Your task to perform on an android device: toggle airplane mode Image 0: 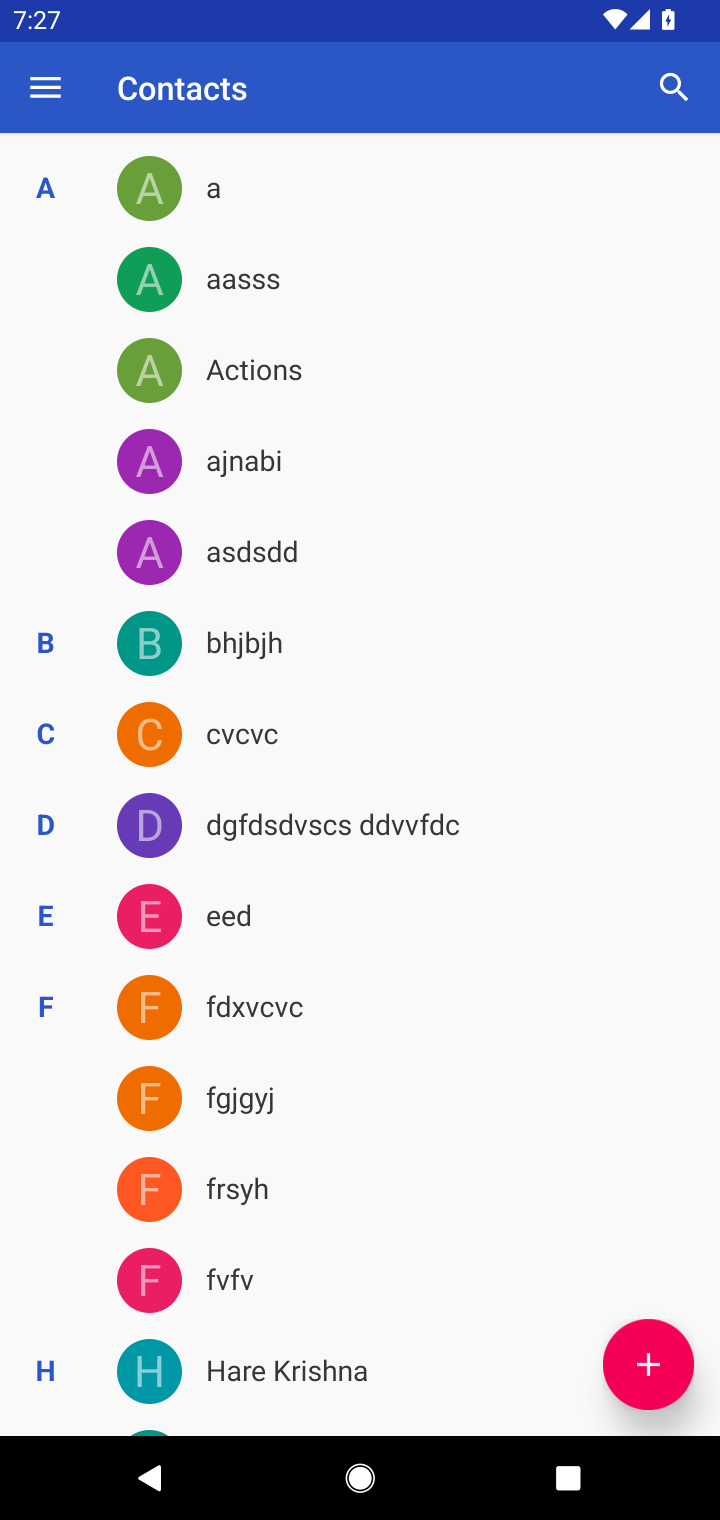
Step 0: press home button
Your task to perform on an android device: toggle airplane mode Image 1: 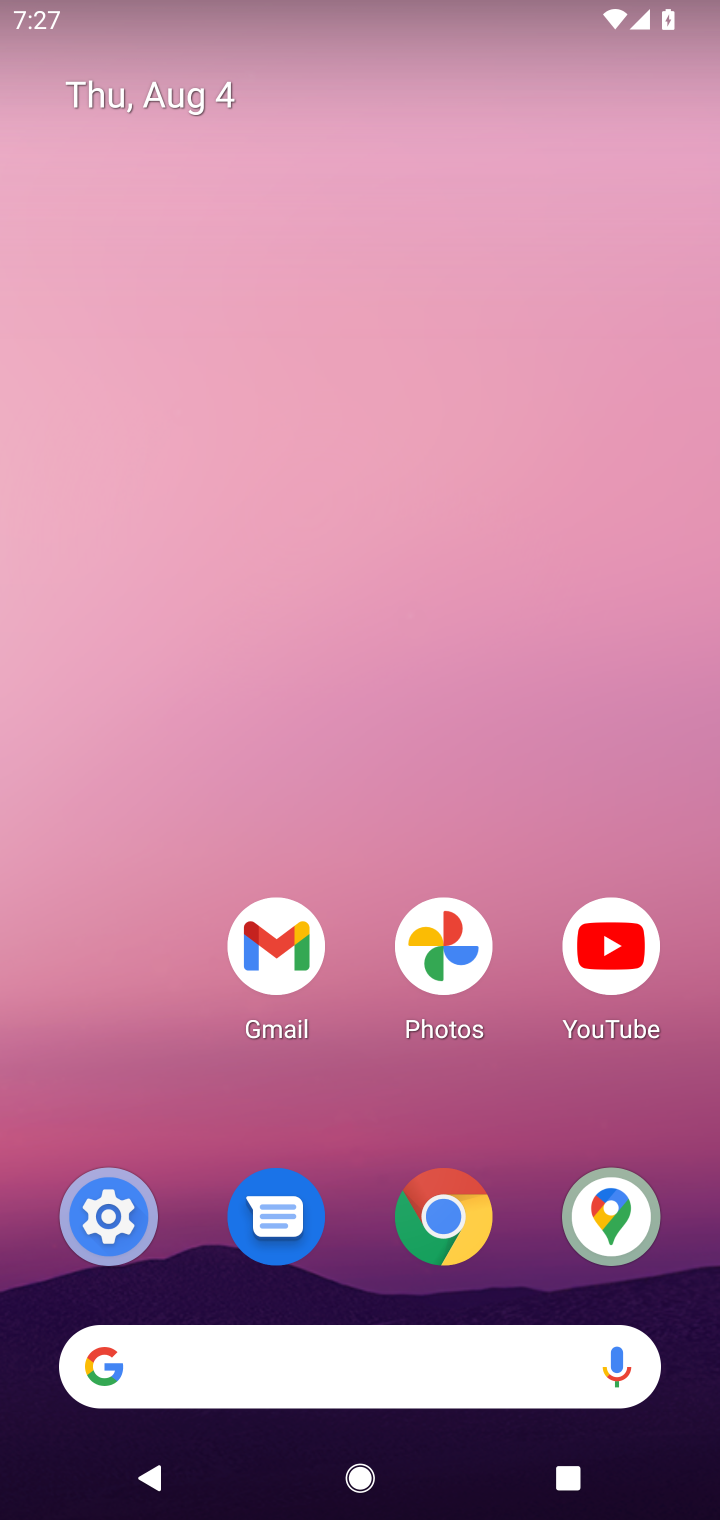
Step 1: drag from (358, 1139) to (360, 114)
Your task to perform on an android device: toggle airplane mode Image 2: 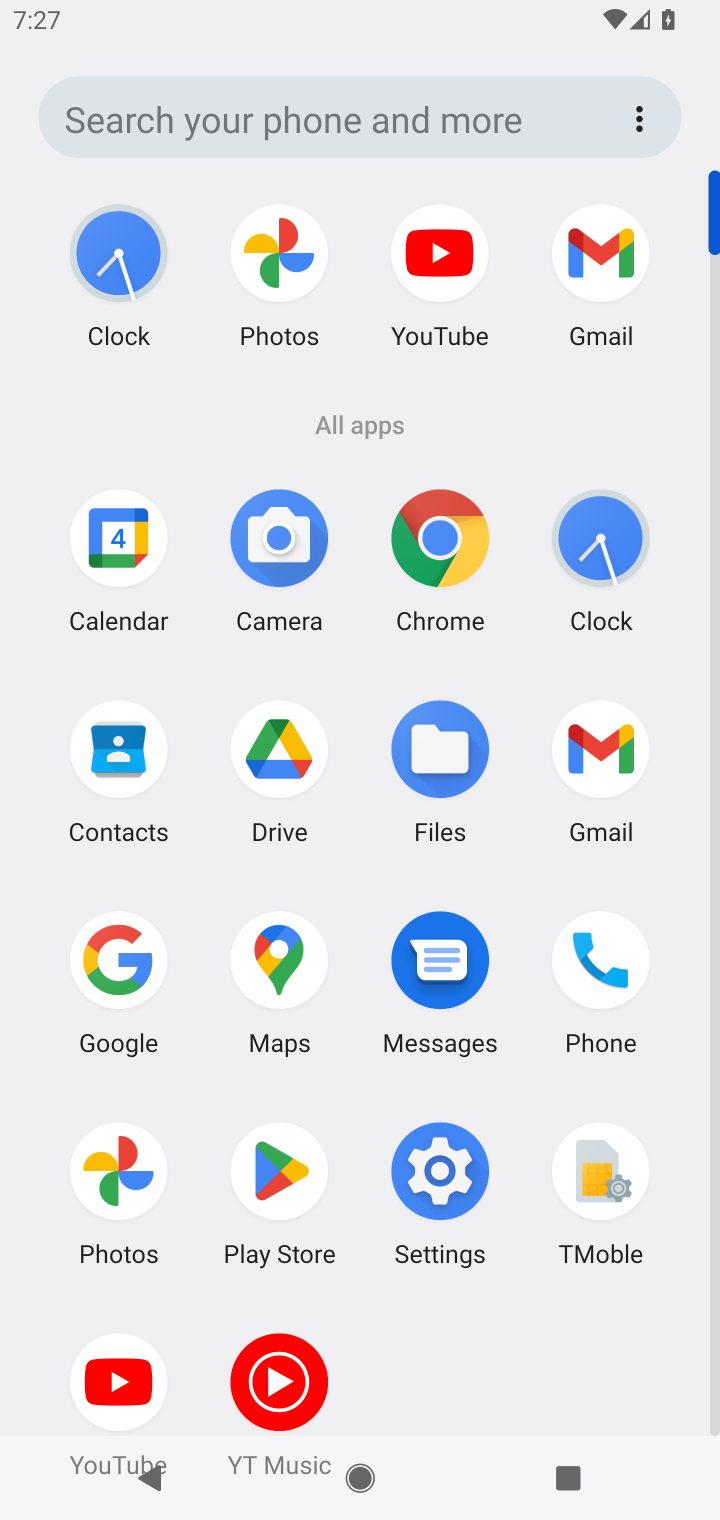
Step 2: click (442, 1185)
Your task to perform on an android device: toggle airplane mode Image 3: 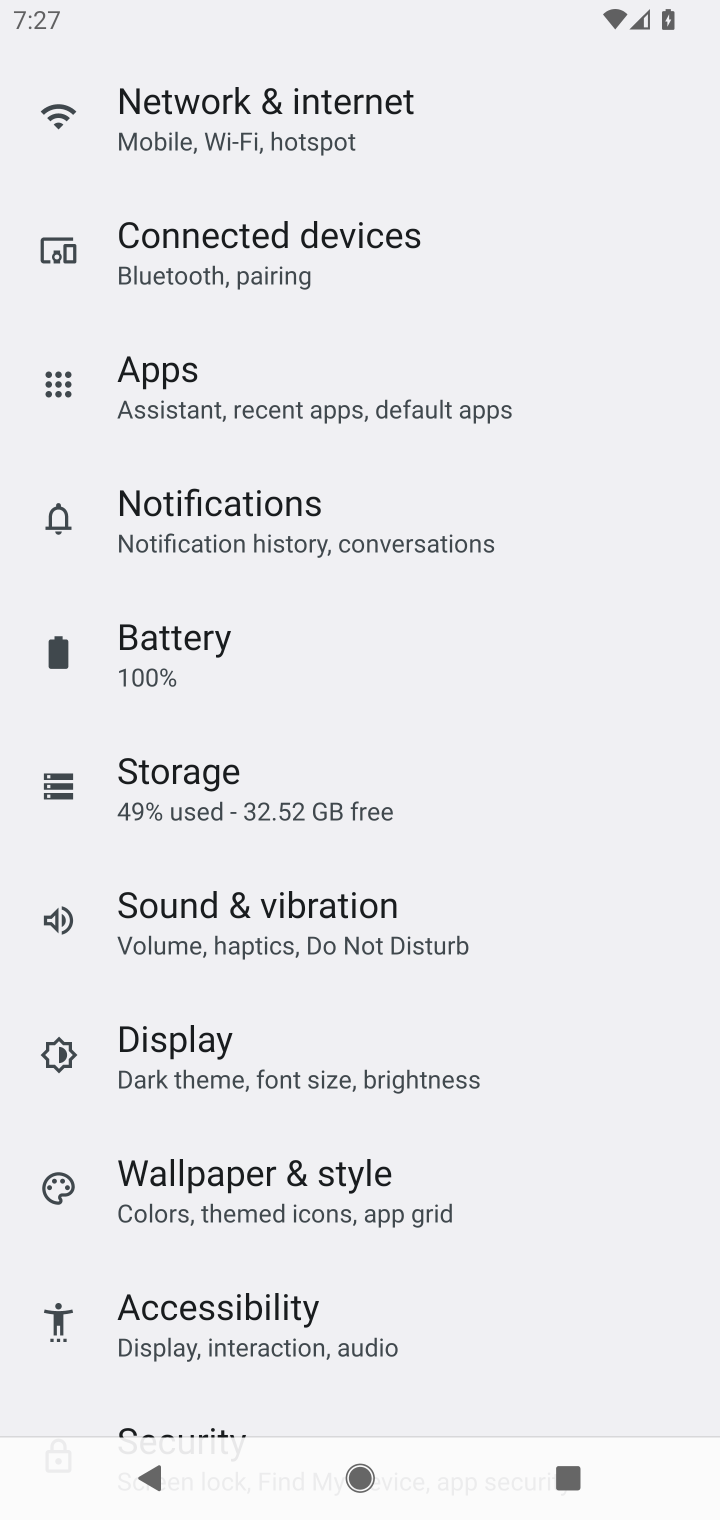
Step 3: click (391, 101)
Your task to perform on an android device: toggle airplane mode Image 4: 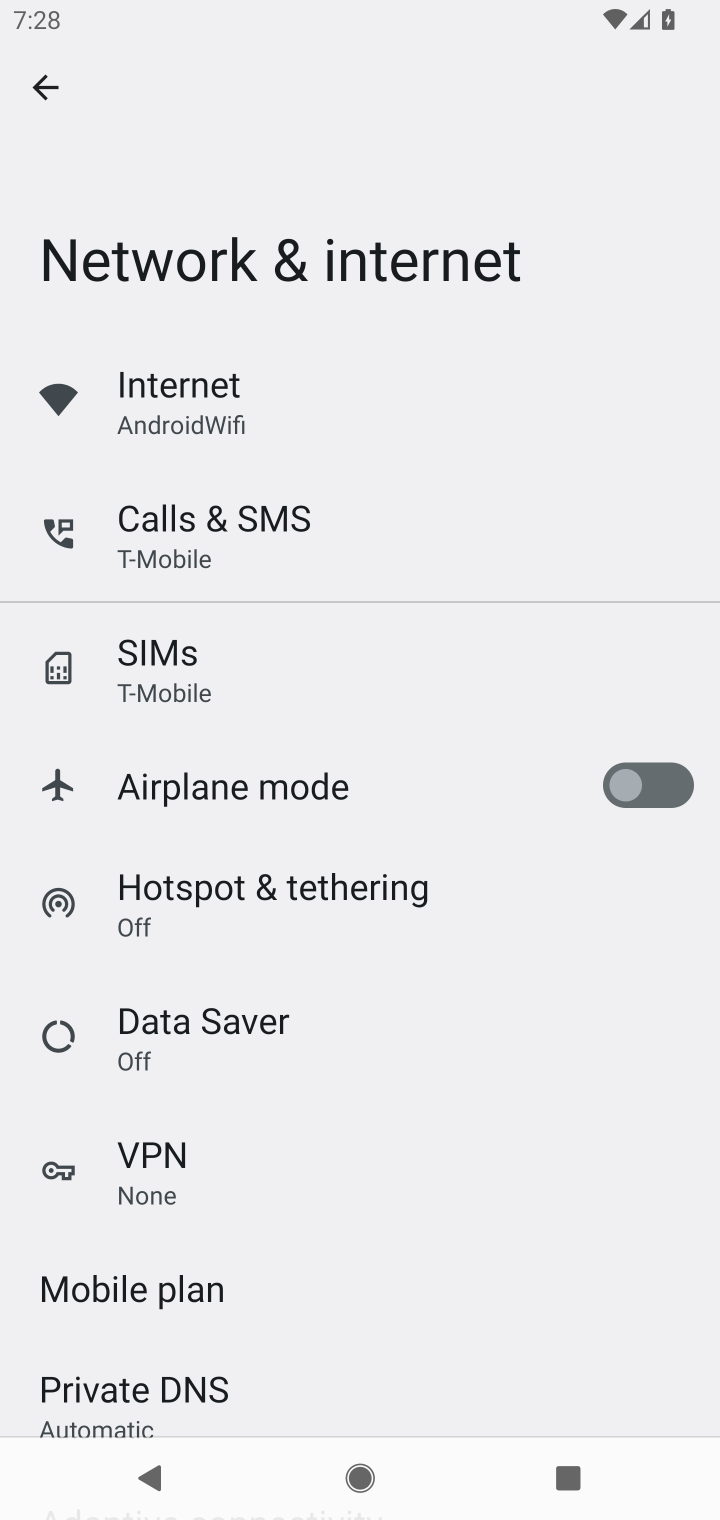
Step 4: click (628, 775)
Your task to perform on an android device: toggle airplane mode Image 5: 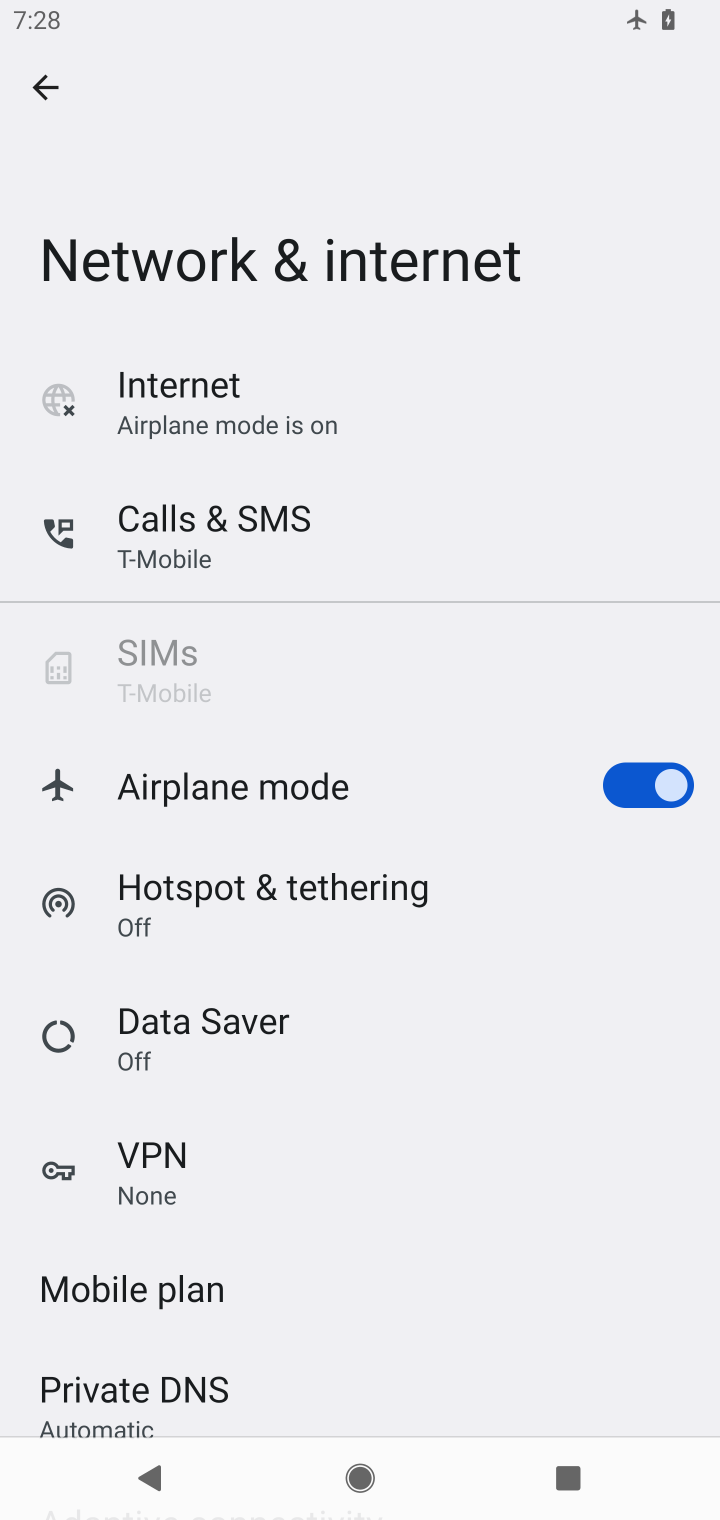
Step 5: task complete